Your task to perform on an android device: What's the weather going to be tomorrow? Image 0: 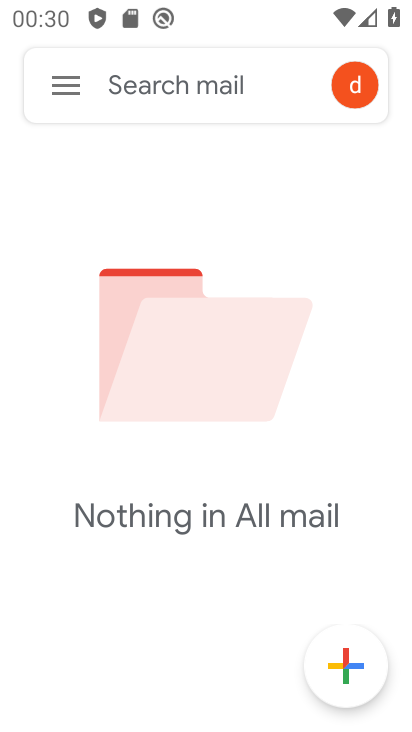
Step 0: press home button
Your task to perform on an android device: What's the weather going to be tomorrow? Image 1: 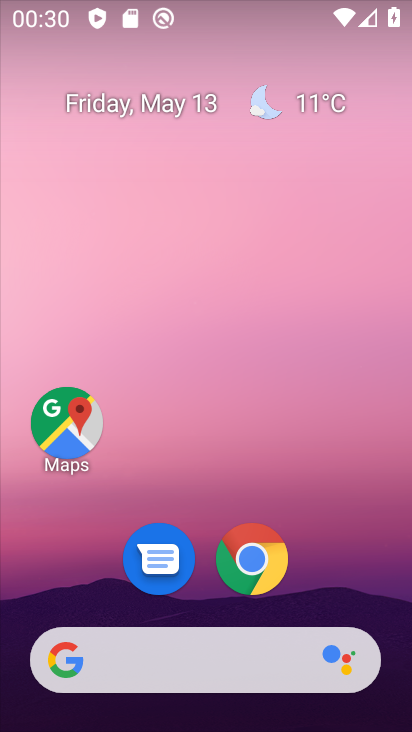
Step 1: drag from (220, 601) to (237, 166)
Your task to perform on an android device: What's the weather going to be tomorrow? Image 2: 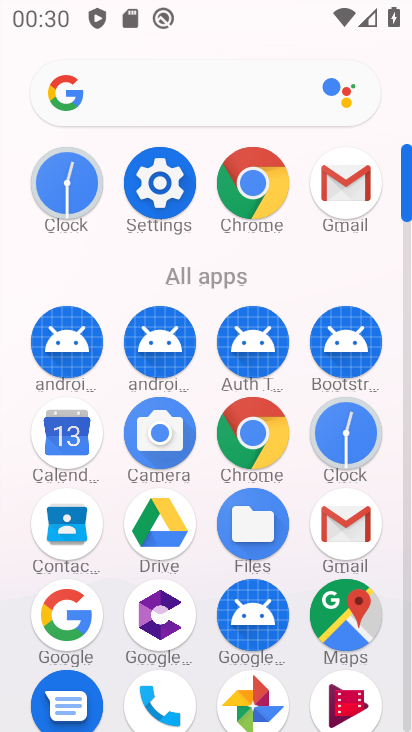
Step 2: click (73, 604)
Your task to perform on an android device: What's the weather going to be tomorrow? Image 3: 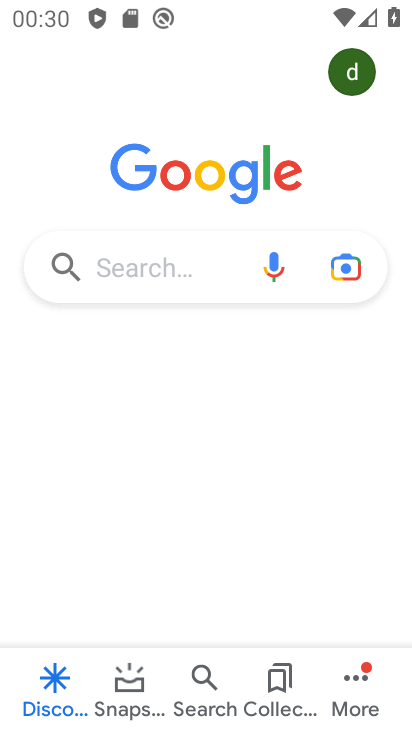
Step 3: drag from (174, 268) to (114, 268)
Your task to perform on an android device: What's the weather going to be tomorrow? Image 4: 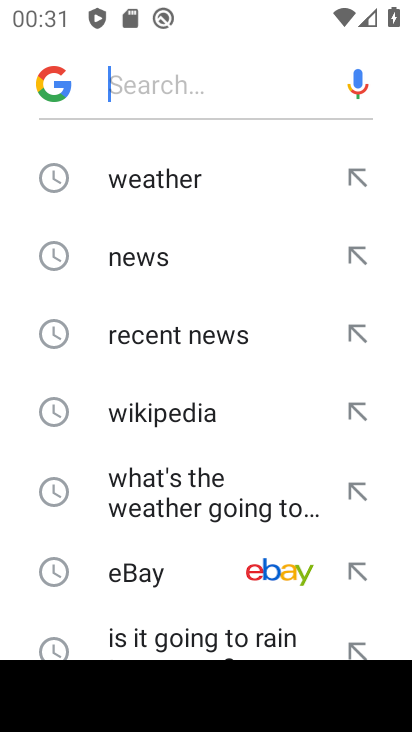
Step 4: type "weather going to be tomorrow"
Your task to perform on an android device: What's the weather going to be tomorrow? Image 5: 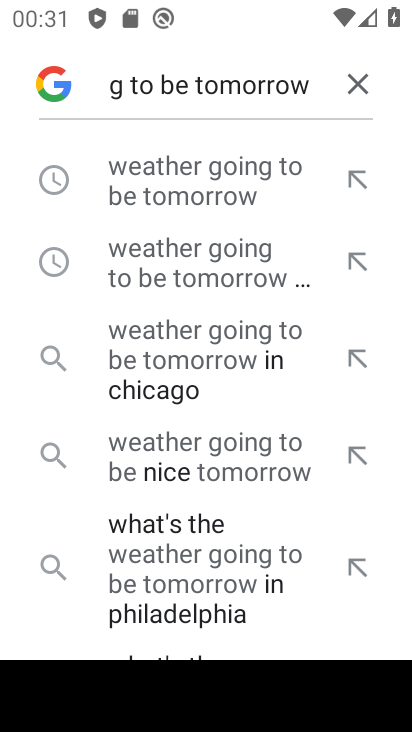
Step 5: click (169, 184)
Your task to perform on an android device: What's the weather going to be tomorrow? Image 6: 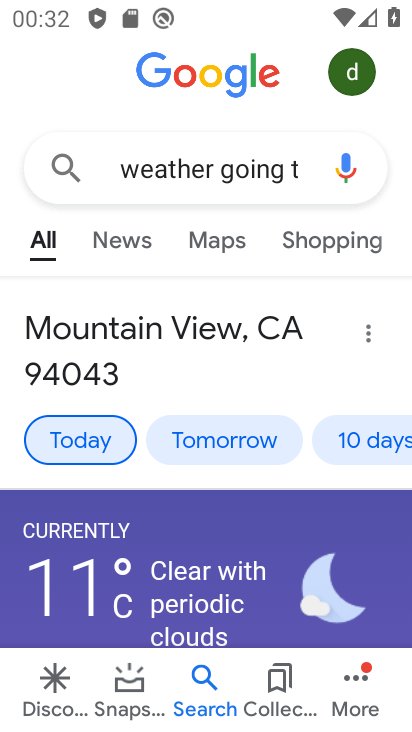
Step 6: task complete